Your task to perform on an android device: allow notifications from all sites in the chrome app Image 0: 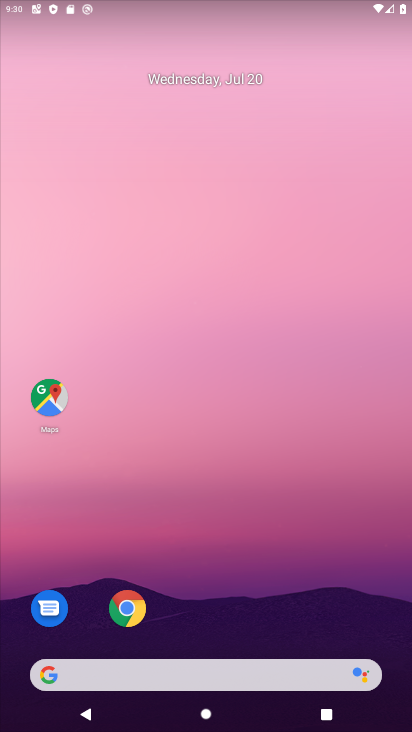
Step 0: click (125, 612)
Your task to perform on an android device: allow notifications from all sites in the chrome app Image 1: 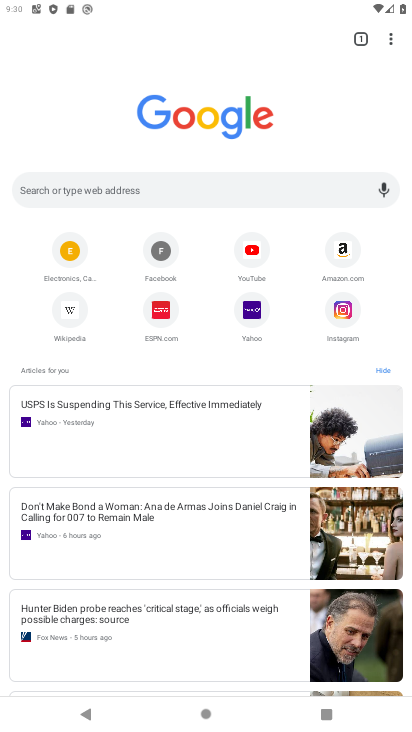
Step 1: click (386, 34)
Your task to perform on an android device: allow notifications from all sites in the chrome app Image 2: 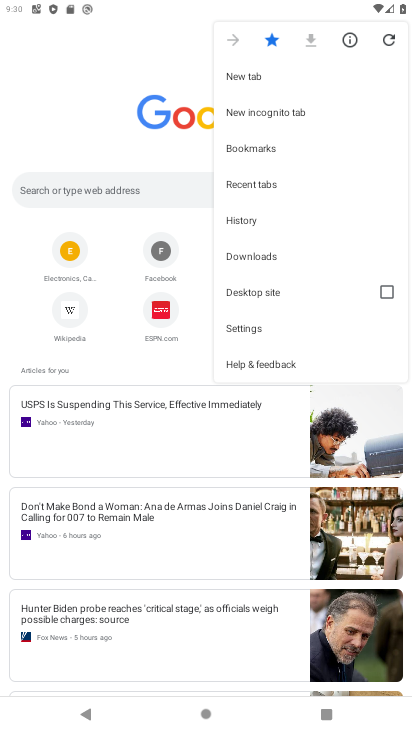
Step 2: click (253, 328)
Your task to perform on an android device: allow notifications from all sites in the chrome app Image 3: 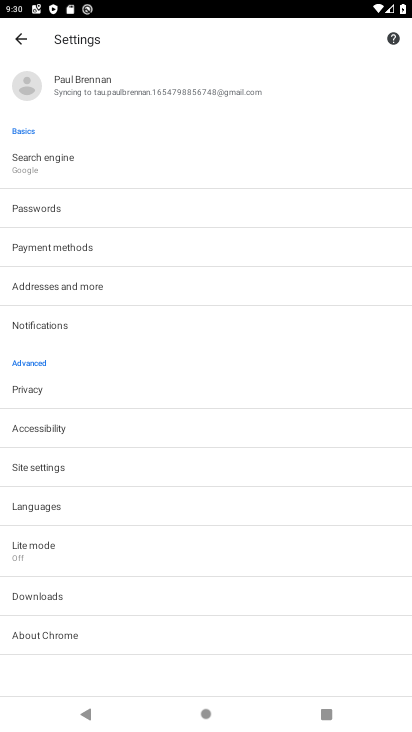
Step 3: click (55, 326)
Your task to perform on an android device: allow notifications from all sites in the chrome app Image 4: 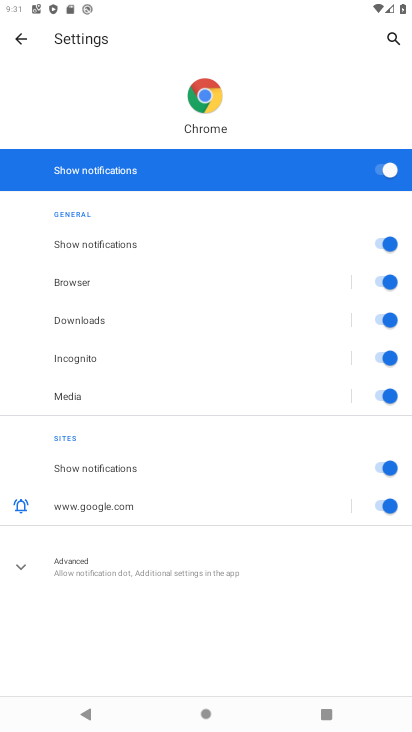
Step 4: task complete